Your task to perform on an android device: Add logitech g910 to the cart on ebay, then select checkout. Image 0: 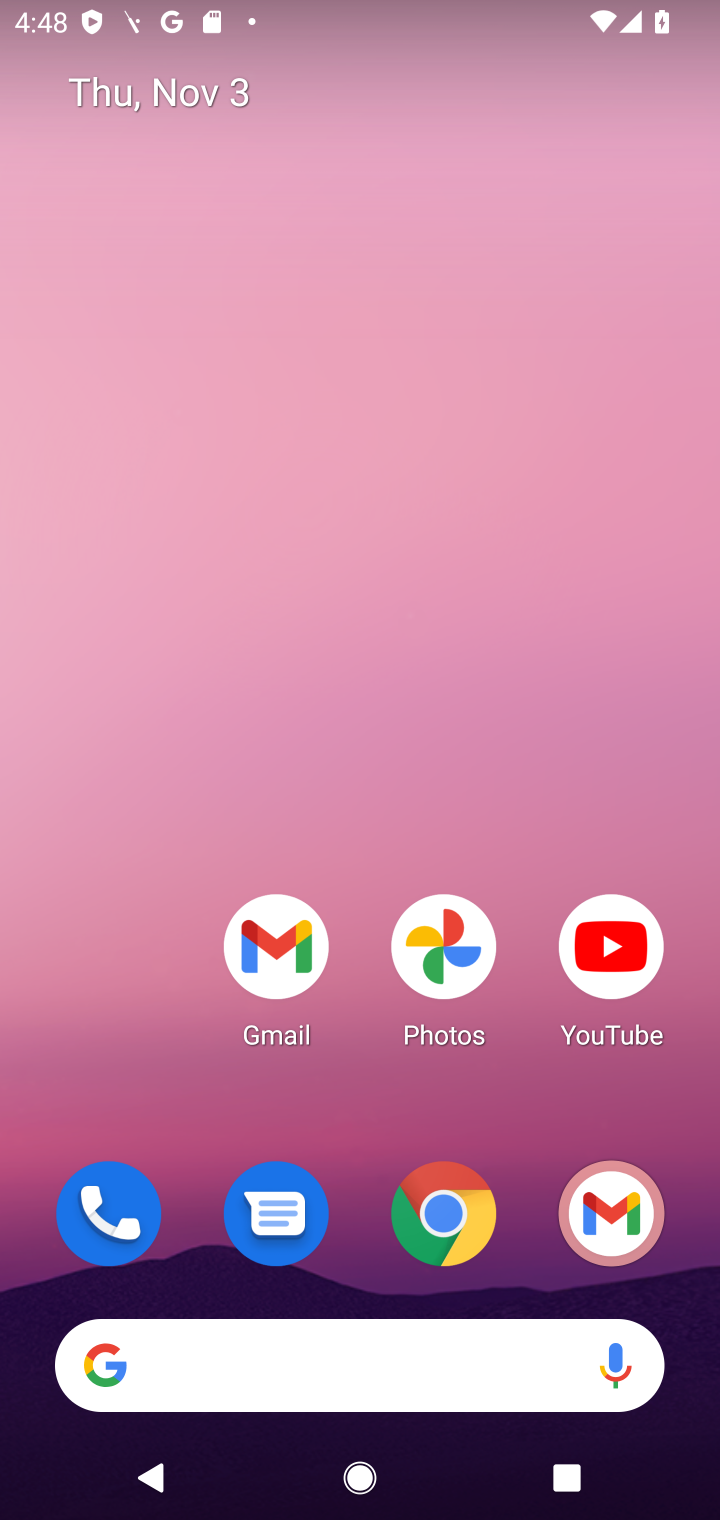
Step 0: click (439, 1215)
Your task to perform on an android device: Add logitech g910 to the cart on ebay, then select checkout. Image 1: 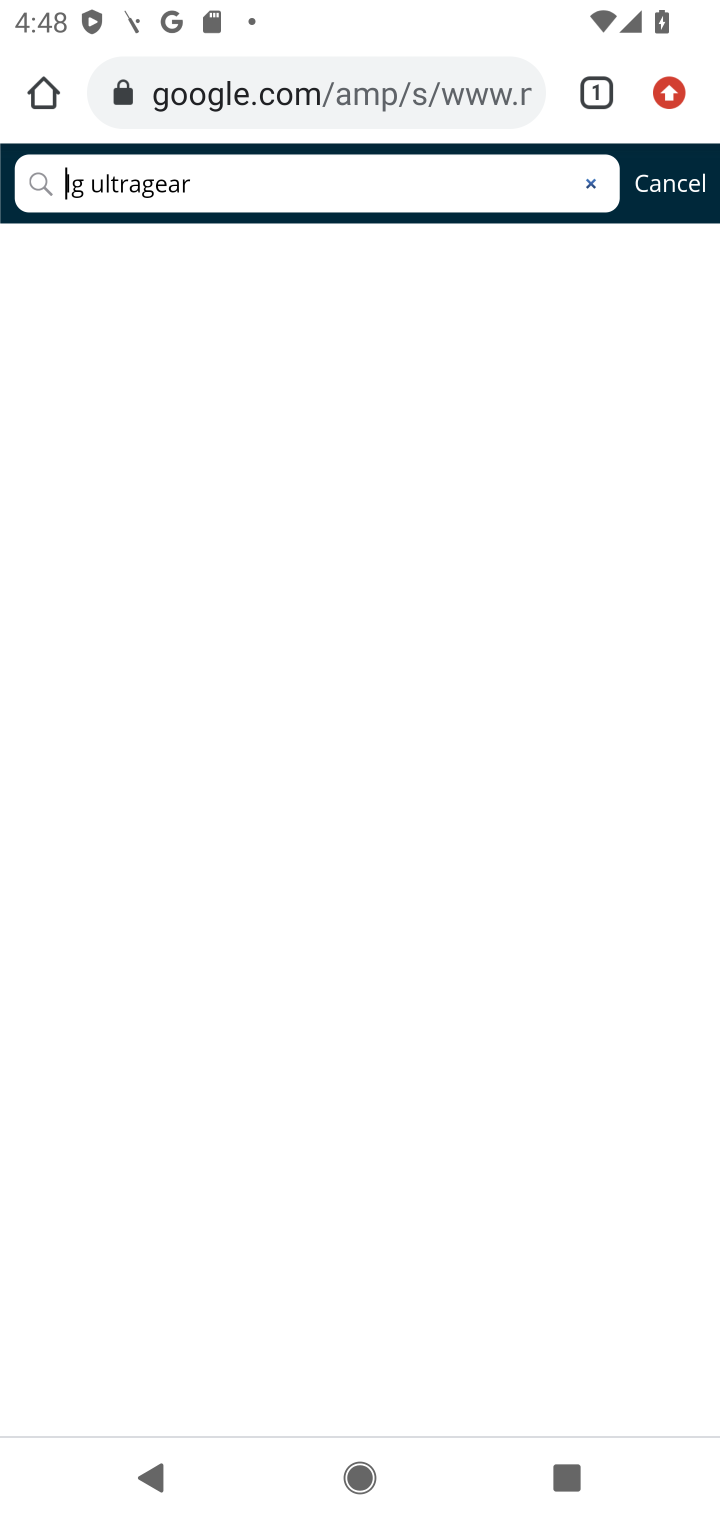
Step 1: click (265, 94)
Your task to perform on an android device: Add logitech g910 to the cart on ebay, then select checkout. Image 2: 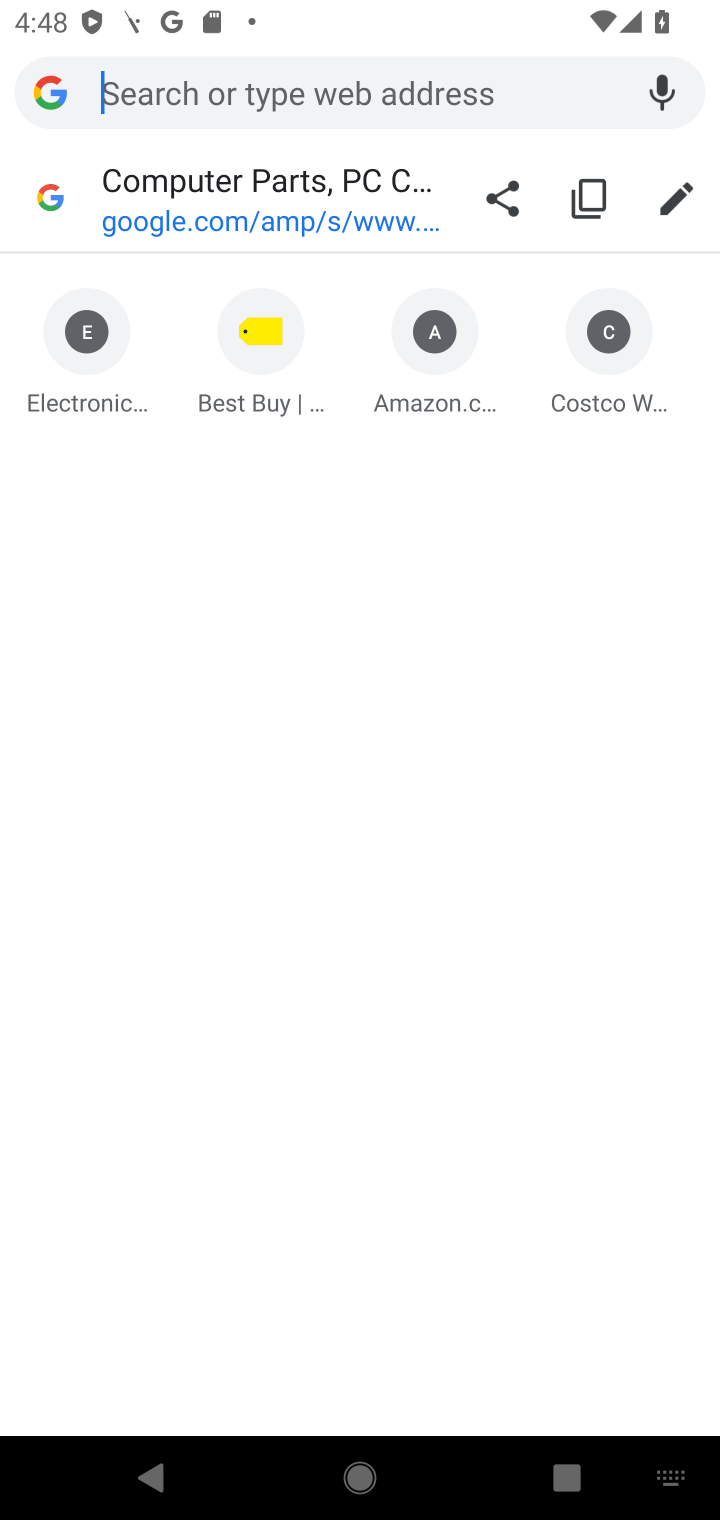
Step 2: type "ebay.com"
Your task to perform on an android device: Add logitech g910 to the cart on ebay, then select checkout. Image 3: 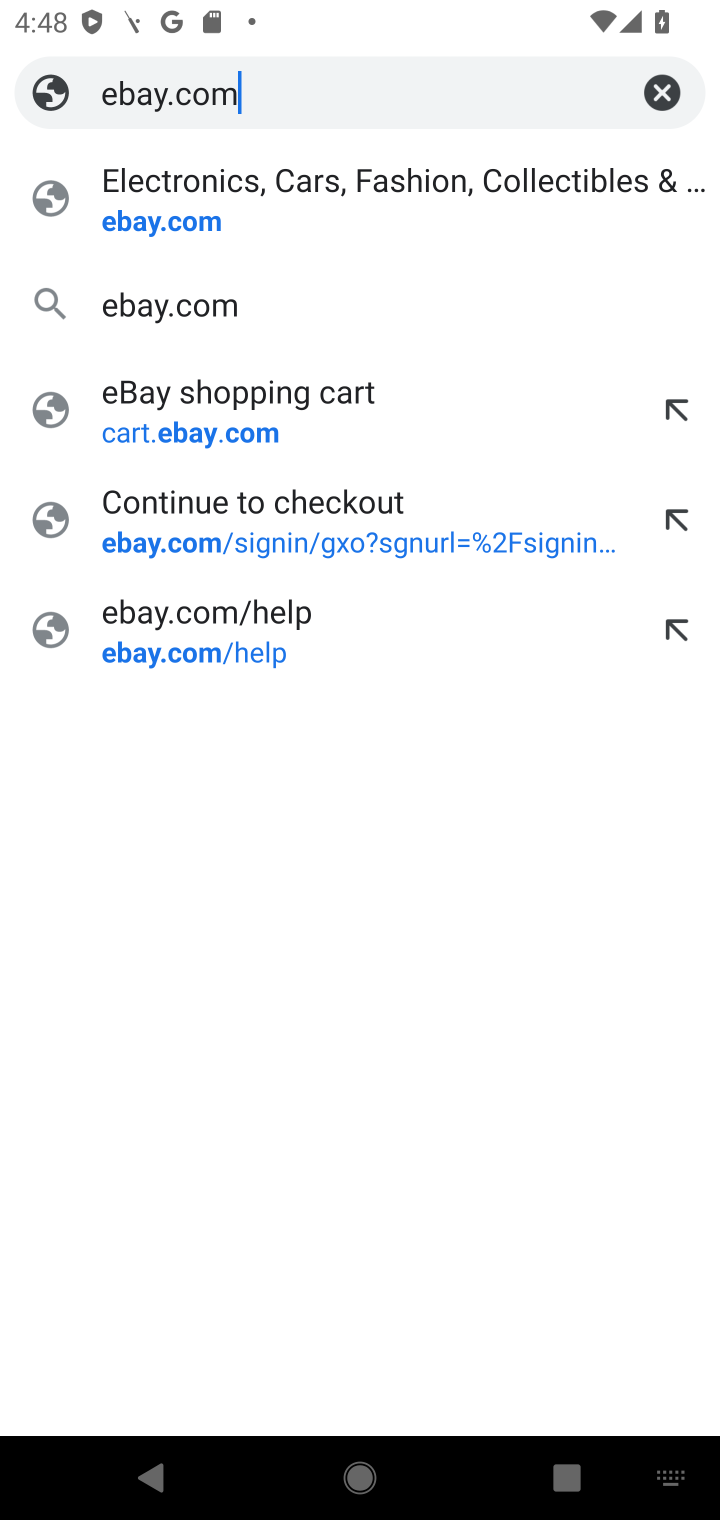
Step 3: click (172, 216)
Your task to perform on an android device: Add logitech g910 to the cart on ebay, then select checkout. Image 4: 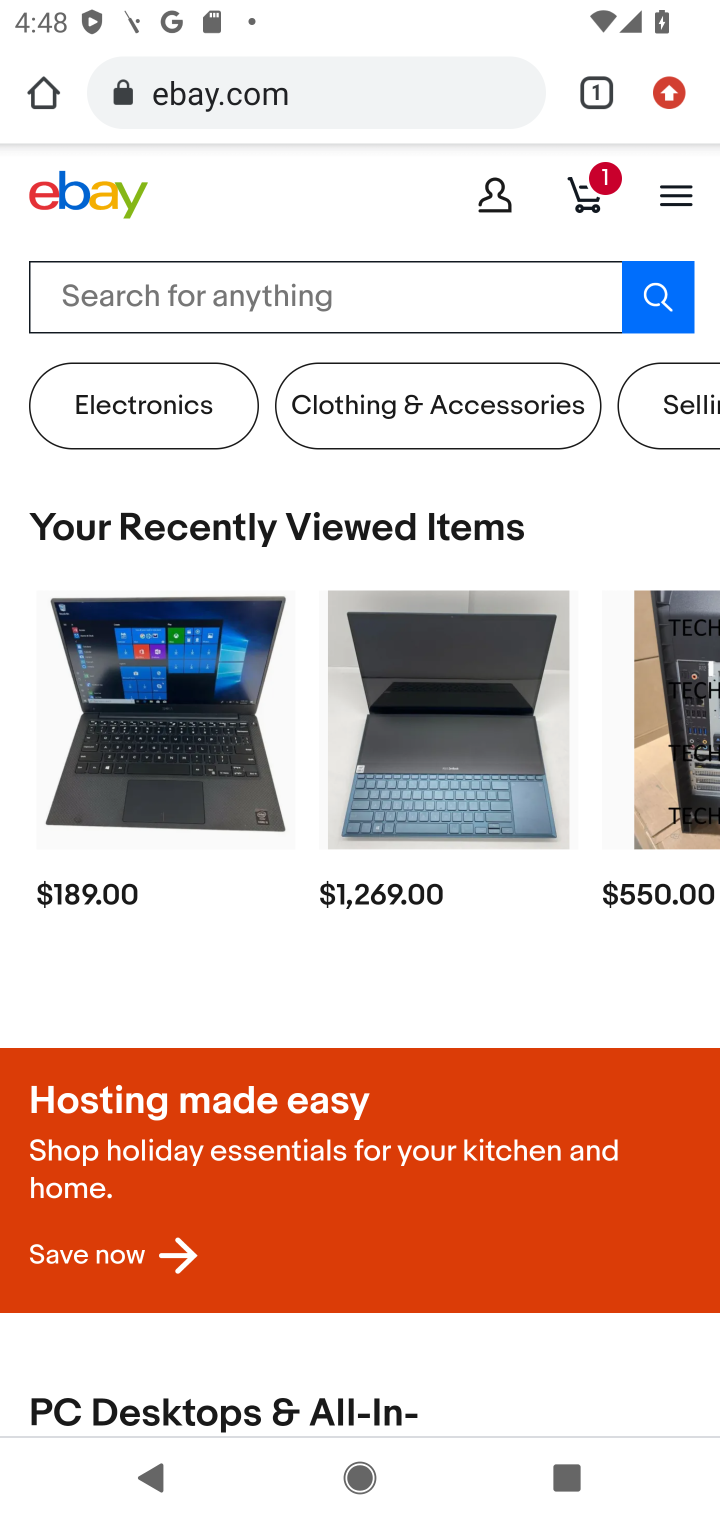
Step 4: click (160, 314)
Your task to perform on an android device: Add logitech g910 to the cart on ebay, then select checkout. Image 5: 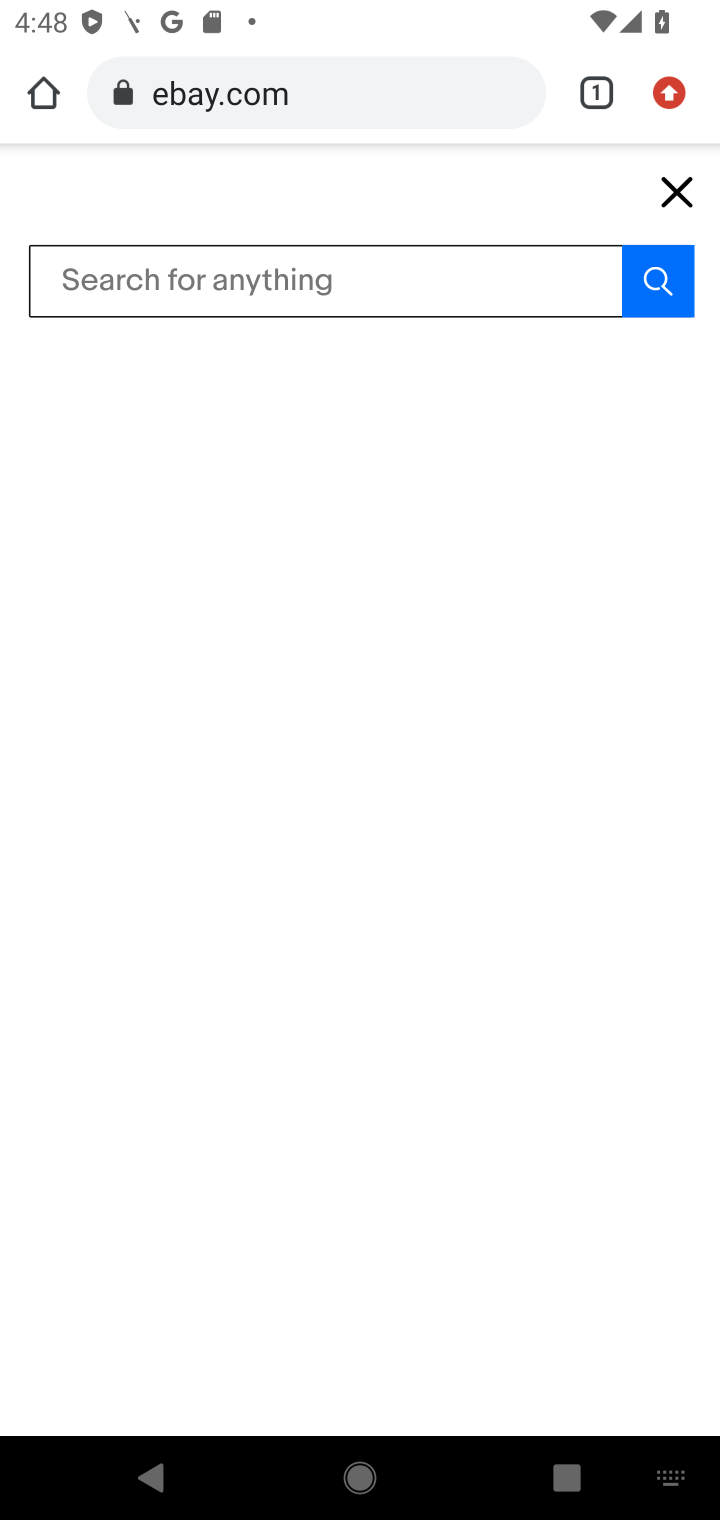
Step 5: type "logitech g910"
Your task to perform on an android device: Add logitech g910 to the cart on ebay, then select checkout. Image 6: 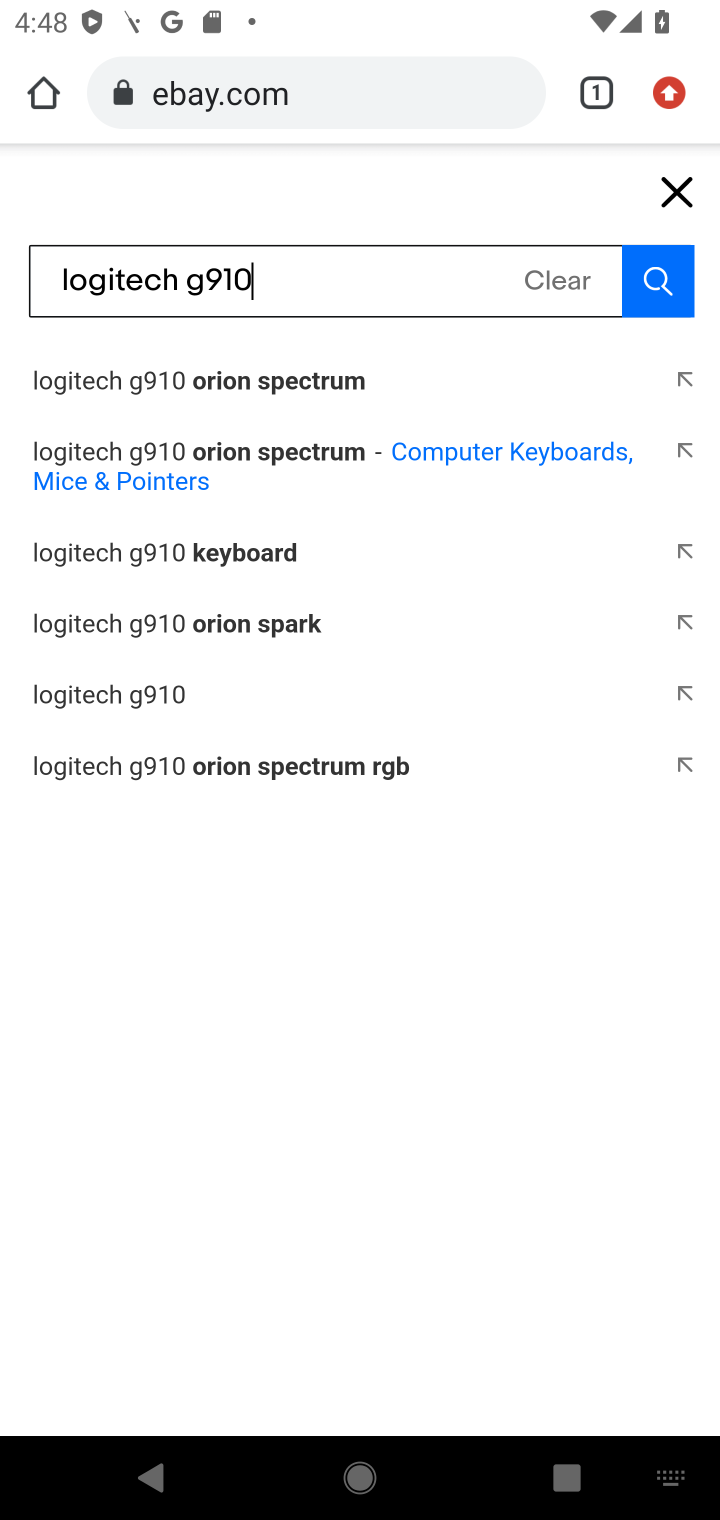
Step 6: click (128, 673)
Your task to perform on an android device: Add logitech g910 to the cart on ebay, then select checkout. Image 7: 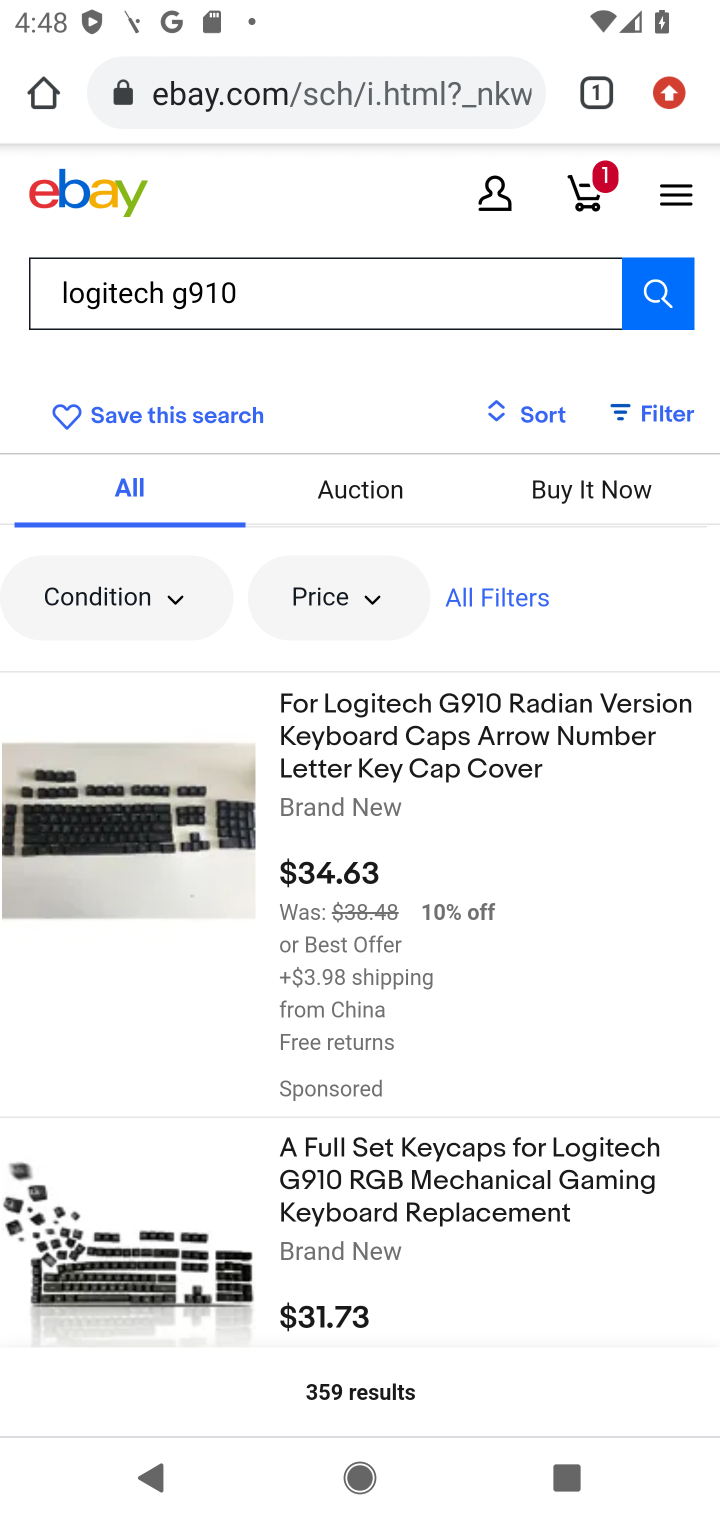
Step 7: click (307, 866)
Your task to perform on an android device: Add logitech g910 to the cart on ebay, then select checkout. Image 8: 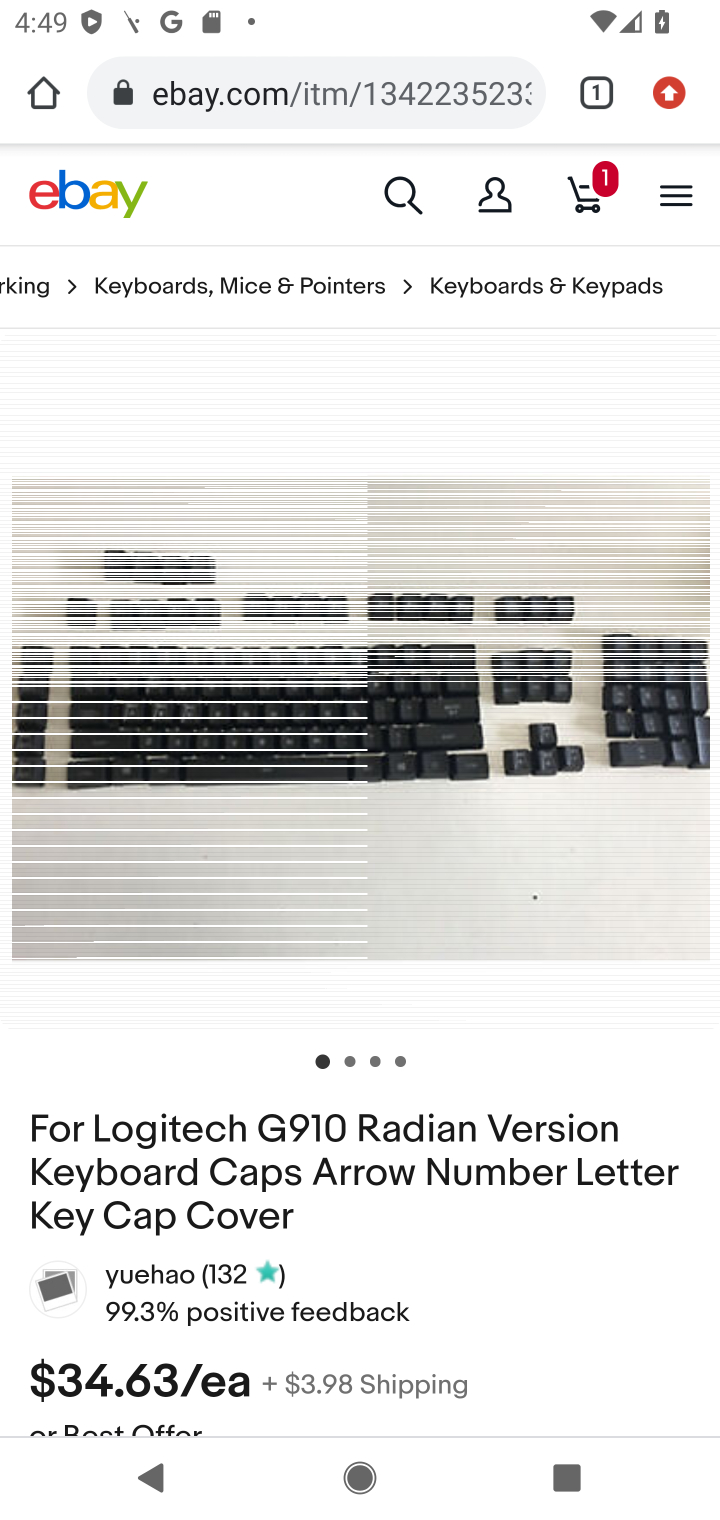
Step 8: drag from (324, 1024) to (358, 330)
Your task to perform on an android device: Add logitech g910 to the cart on ebay, then select checkout. Image 9: 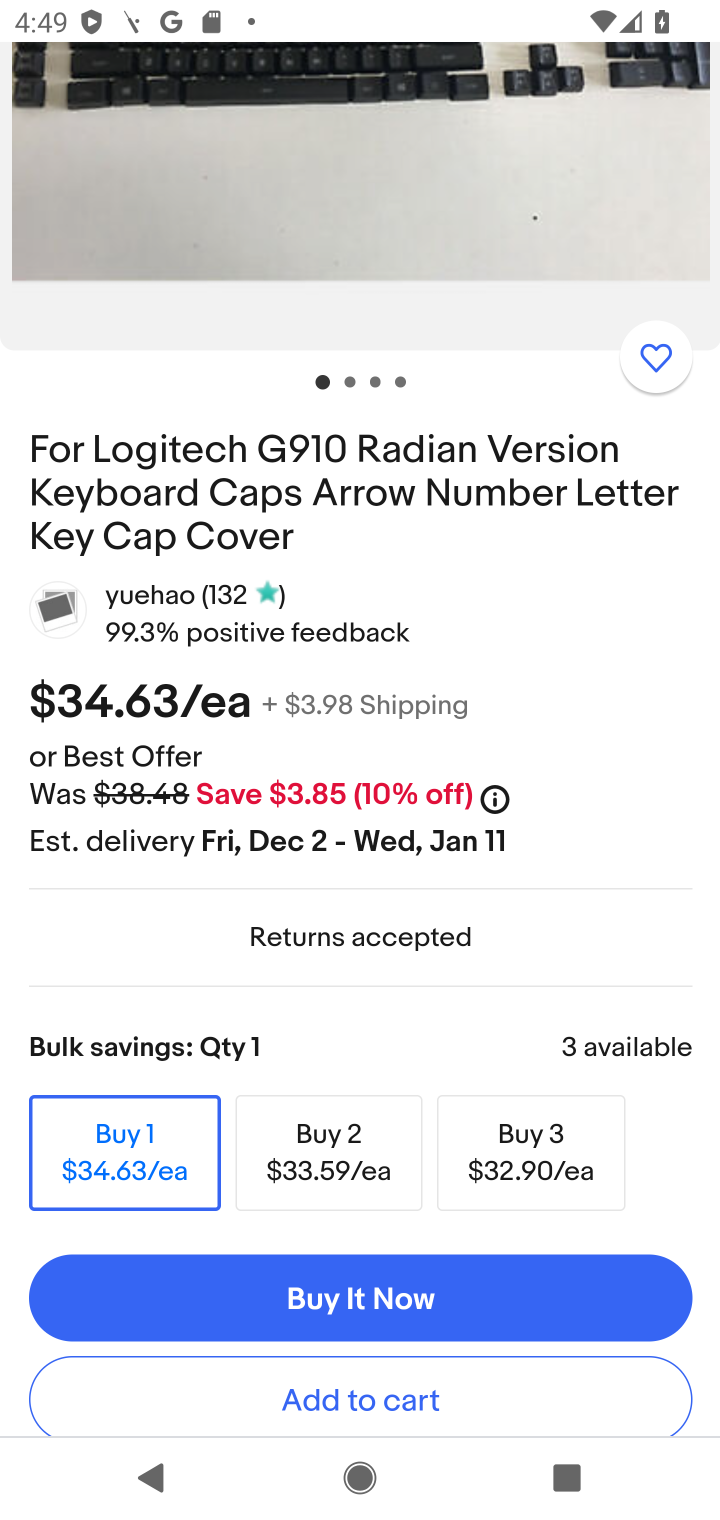
Step 9: drag from (356, 931) to (394, 374)
Your task to perform on an android device: Add logitech g910 to the cart on ebay, then select checkout. Image 10: 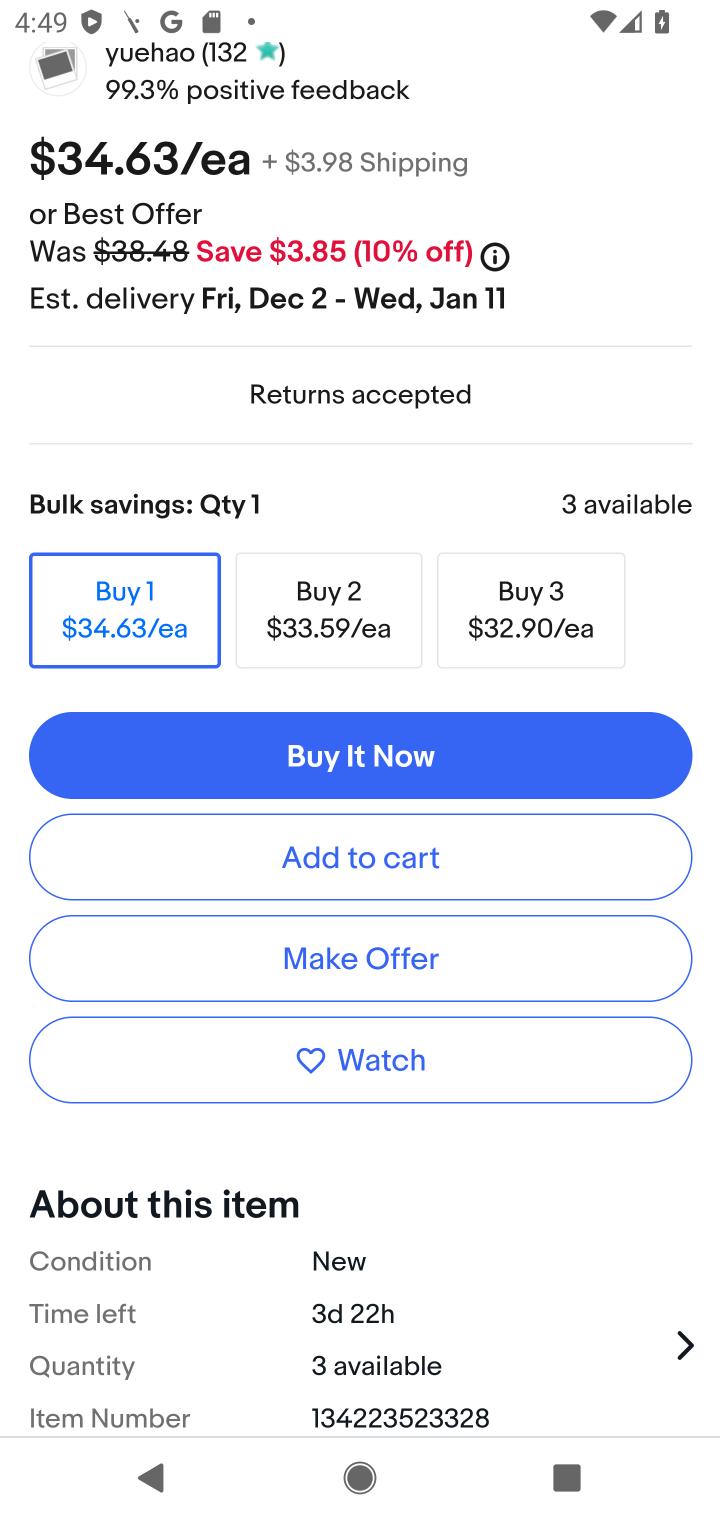
Step 10: click (324, 845)
Your task to perform on an android device: Add logitech g910 to the cart on ebay, then select checkout. Image 11: 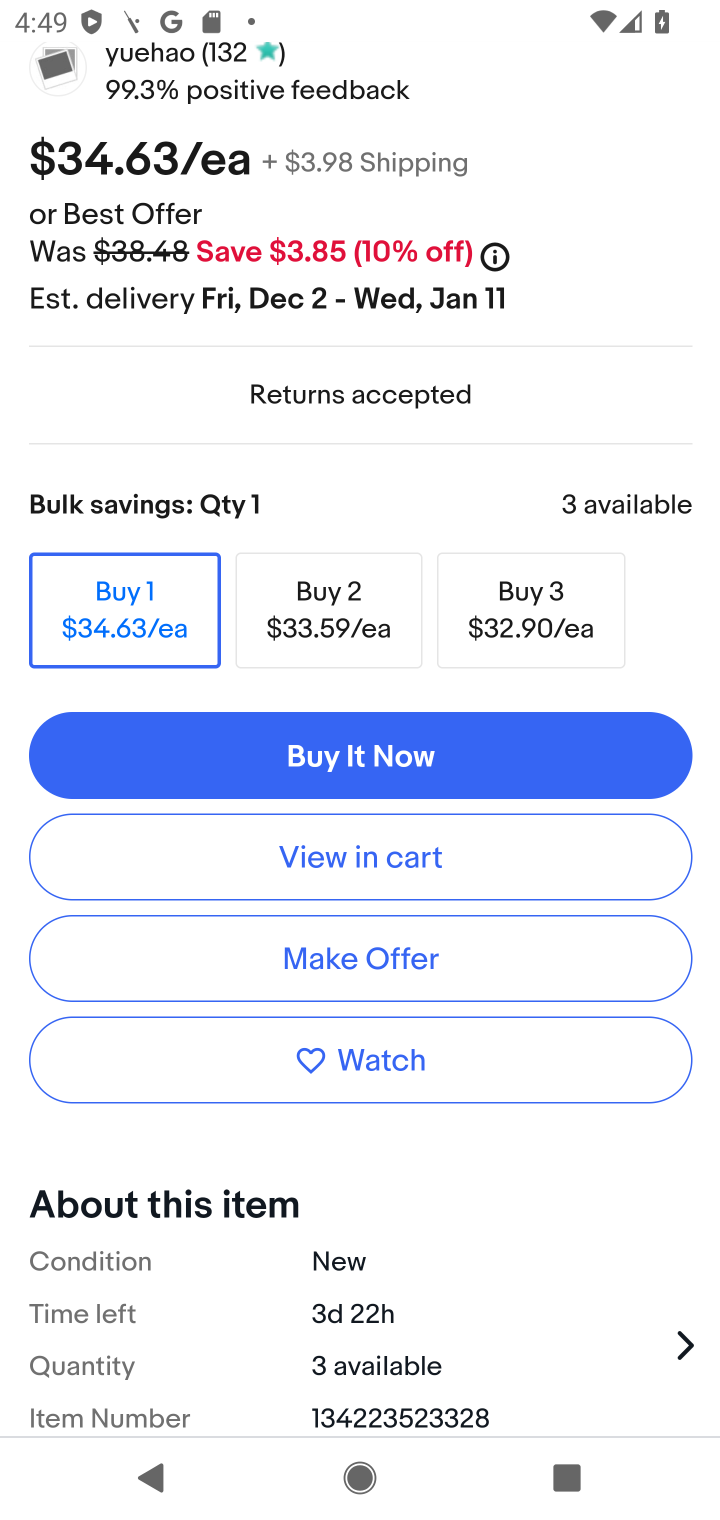
Step 11: click (324, 845)
Your task to perform on an android device: Add logitech g910 to the cart on ebay, then select checkout. Image 12: 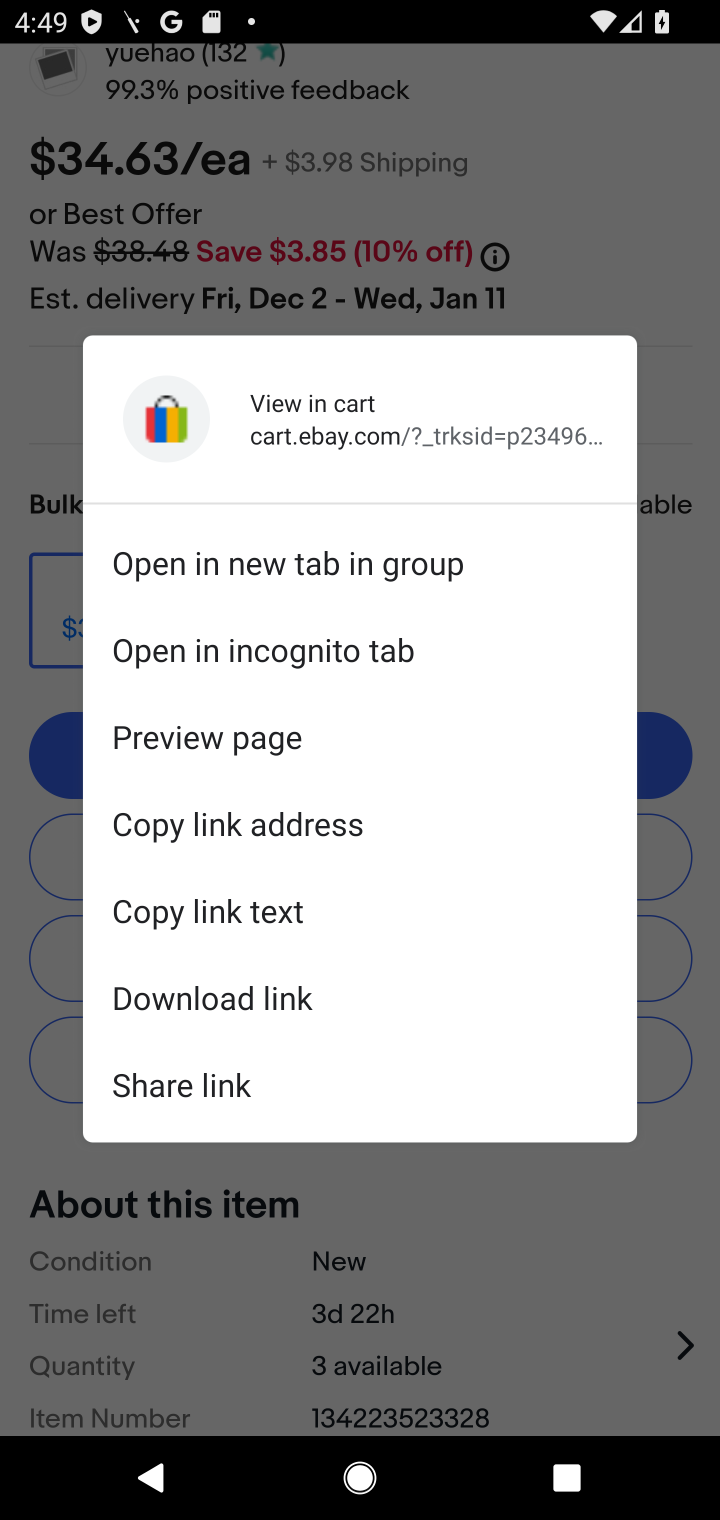
Step 12: click (30, 876)
Your task to perform on an android device: Add logitech g910 to the cart on ebay, then select checkout. Image 13: 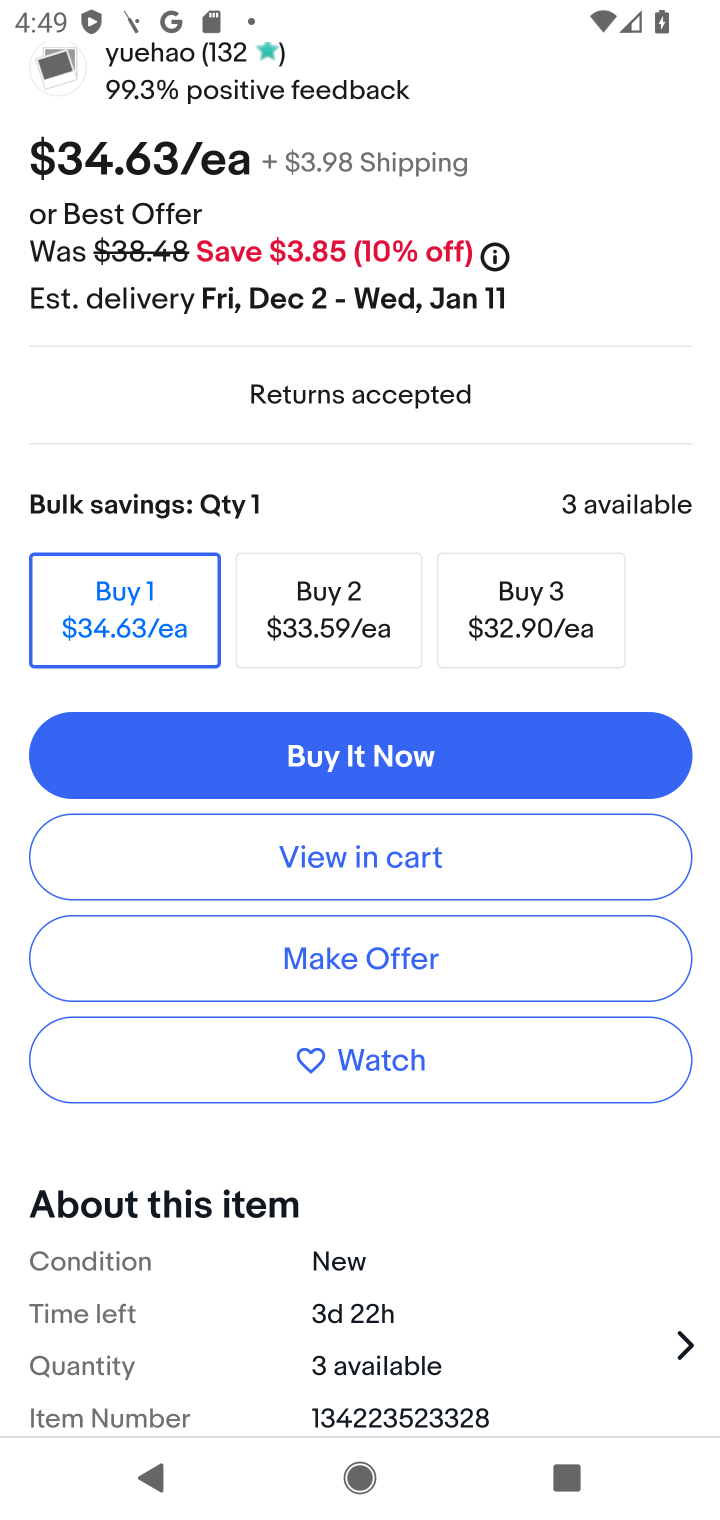
Step 13: click (344, 862)
Your task to perform on an android device: Add logitech g910 to the cart on ebay, then select checkout. Image 14: 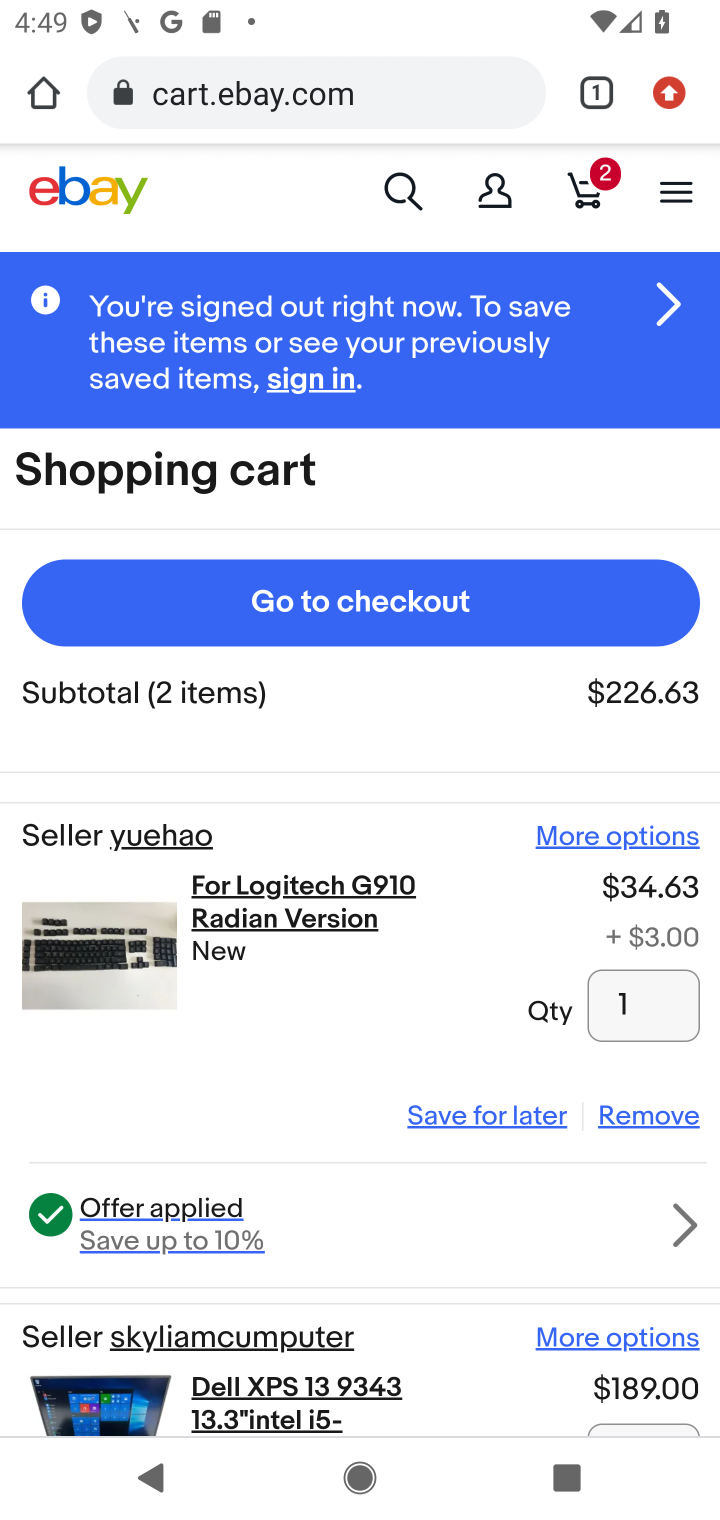
Step 14: click (323, 610)
Your task to perform on an android device: Add logitech g910 to the cart on ebay, then select checkout. Image 15: 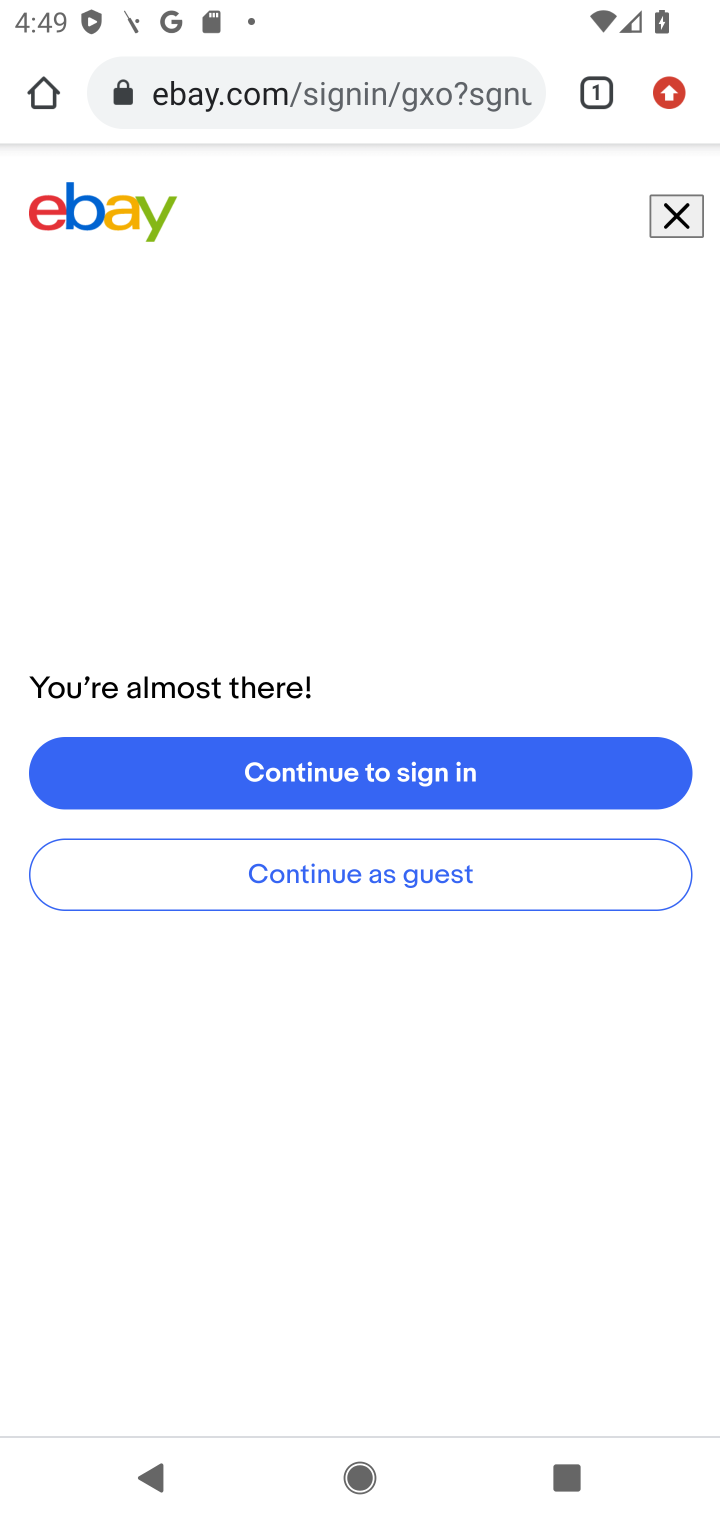
Step 15: task complete